Your task to perform on an android device: show emergency info Image 0: 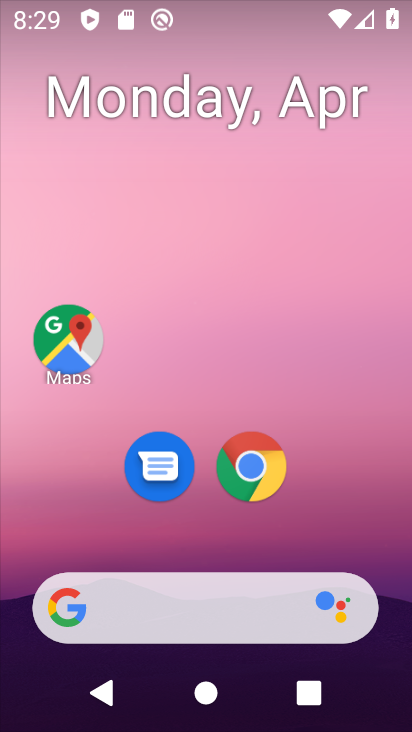
Step 0: drag from (231, 410) to (264, 80)
Your task to perform on an android device: show emergency info Image 1: 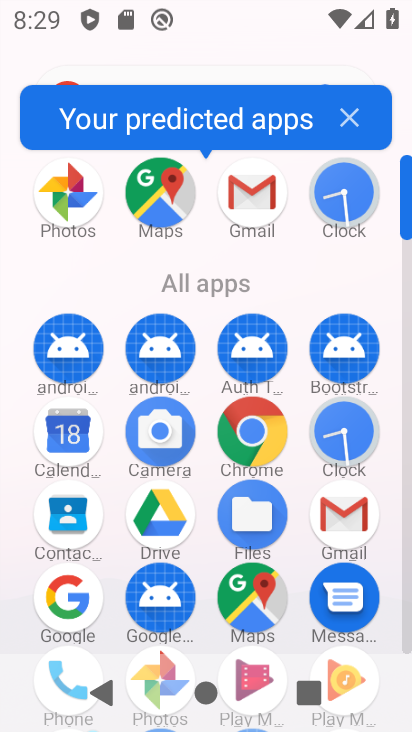
Step 1: drag from (299, 527) to (323, 233)
Your task to perform on an android device: show emergency info Image 2: 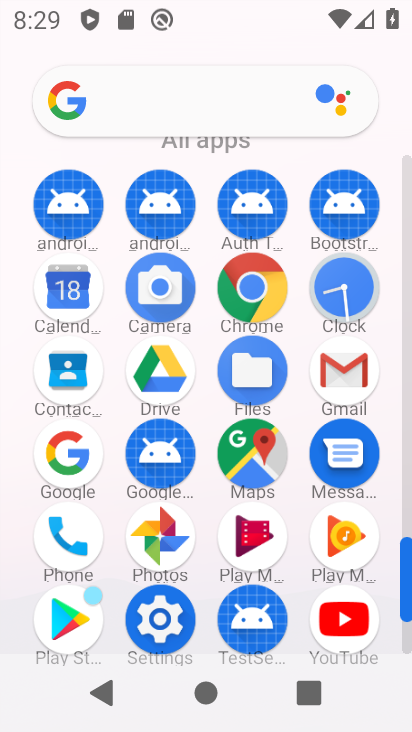
Step 2: click (163, 618)
Your task to perform on an android device: show emergency info Image 3: 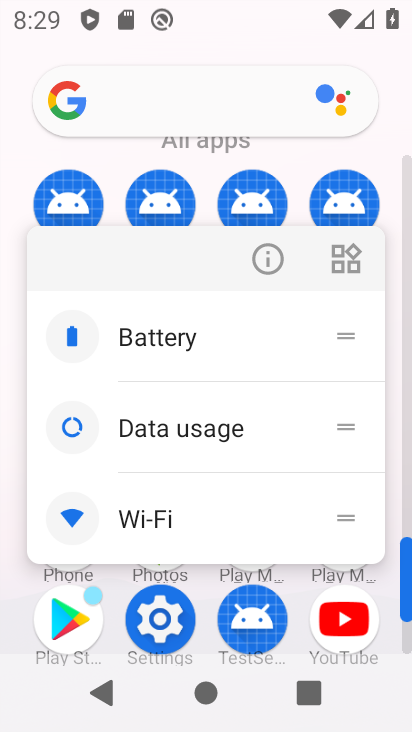
Step 3: click (163, 618)
Your task to perform on an android device: show emergency info Image 4: 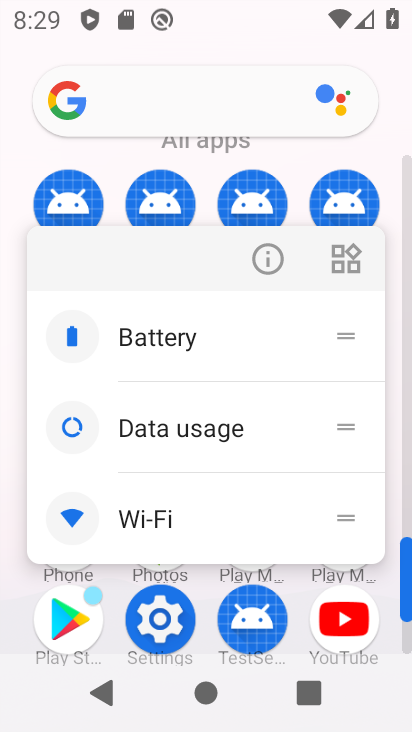
Step 4: click (163, 618)
Your task to perform on an android device: show emergency info Image 5: 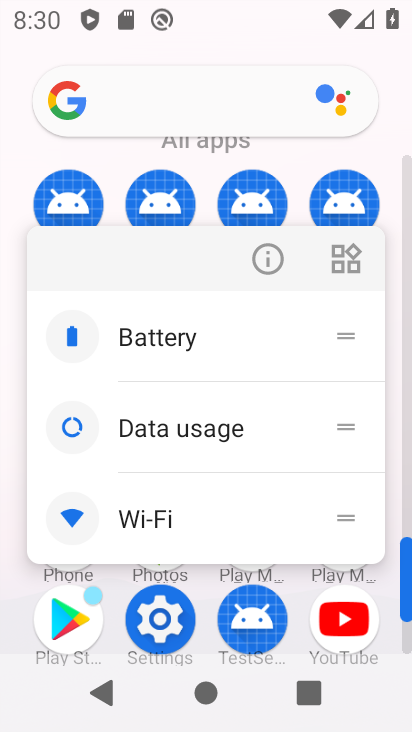
Step 5: click (162, 615)
Your task to perform on an android device: show emergency info Image 6: 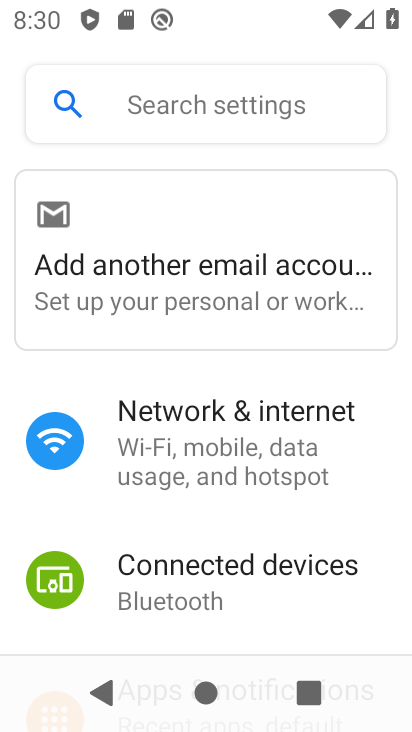
Step 6: drag from (270, 596) to (304, 390)
Your task to perform on an android device: show emergency info Image 7: 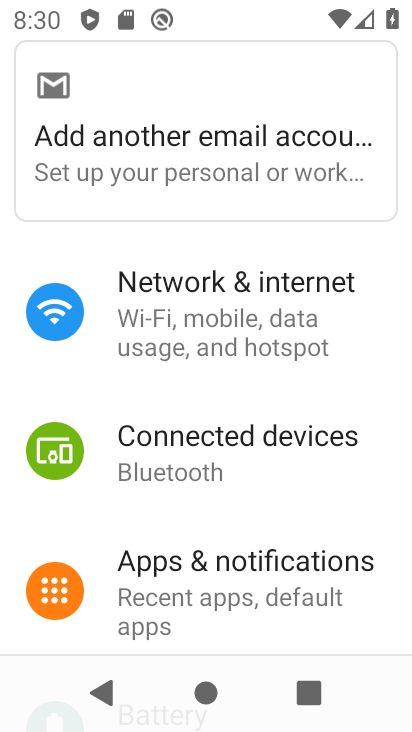
Step 7: drag from (285, 381) to (291, 302)
Your task to perform on an android device: show emergency info Image 8: 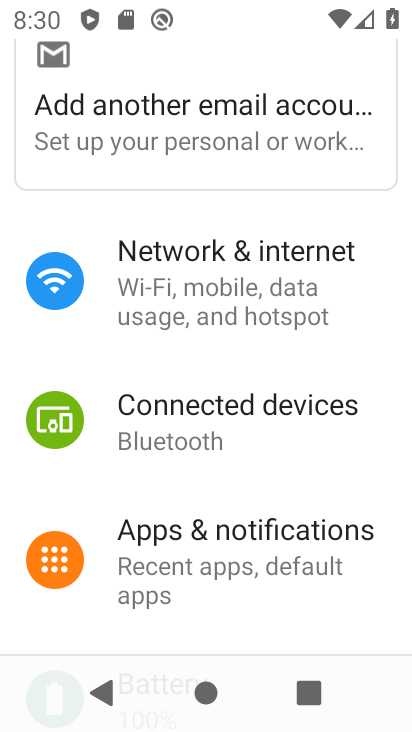
Step 8: drag from (239, 610) to (299, 444)
Your task to perform on an android device: show emergency info Image 9: 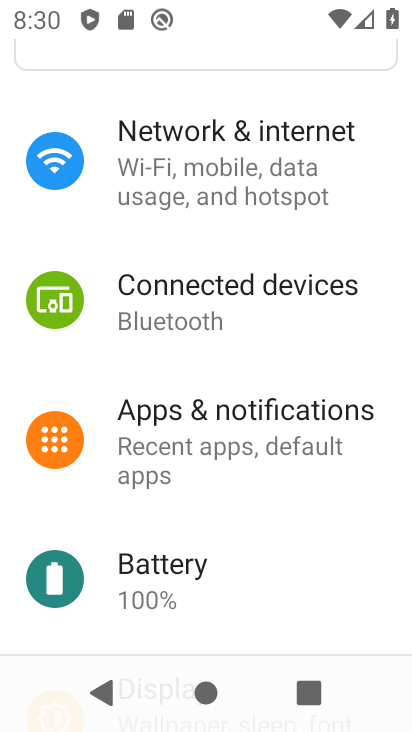
Step 9: drag from (253, 562) to (304, 354)
Your task to perform on an android device: show emergency info Image 10: 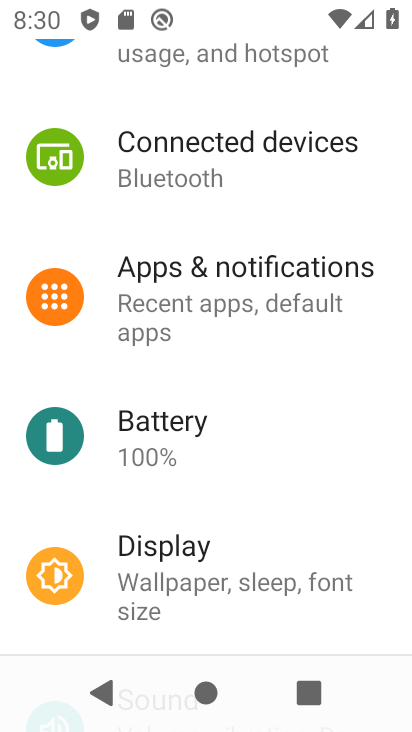
Step 10: drag from (287, 446) to (326, 267)
Your task to perform on an android device: show emergency info Image 11: 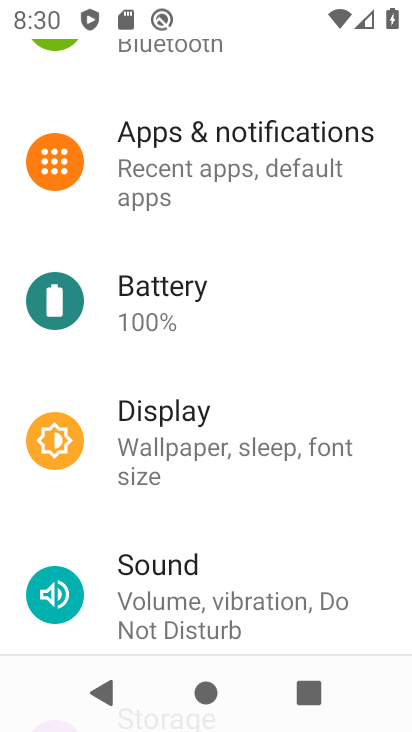
Step 11: drag from (268, 509) to (308, 389)
Your task to perform on an android device: show emergency info Image 12: 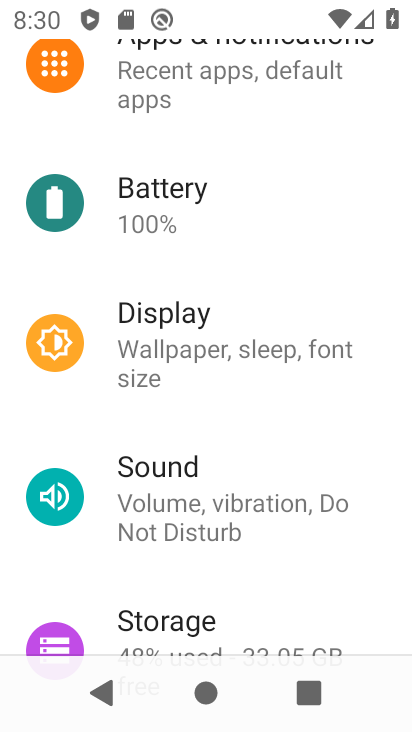
Step 12: drag from (256, 465) to (289, 325)
Your task to perform on an android device: show emergency info Image 13: 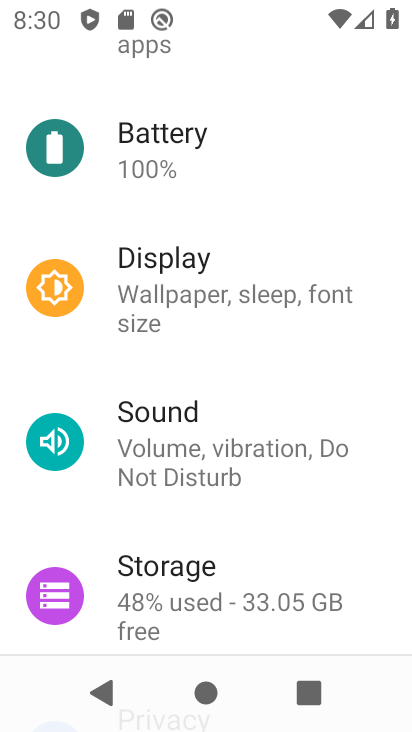
Step 13: drag from (260, 538) to (300, 354)
Your task to perform on an android device: show emergency info Image 14: 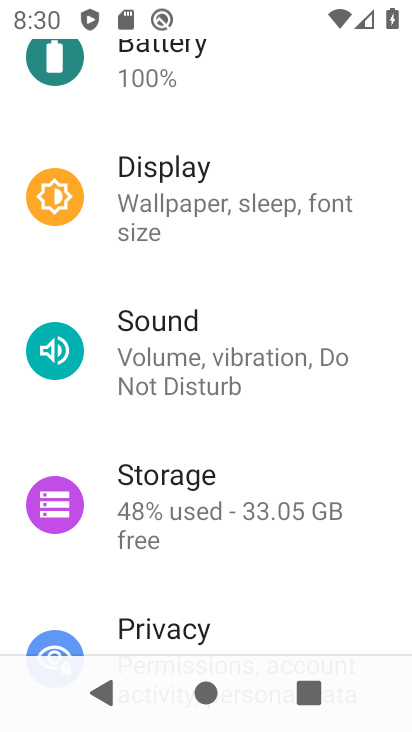
Step 14: drag from (267, 463) to (305, 310)
Your task to perform on an android device: show emergency info Image 15: 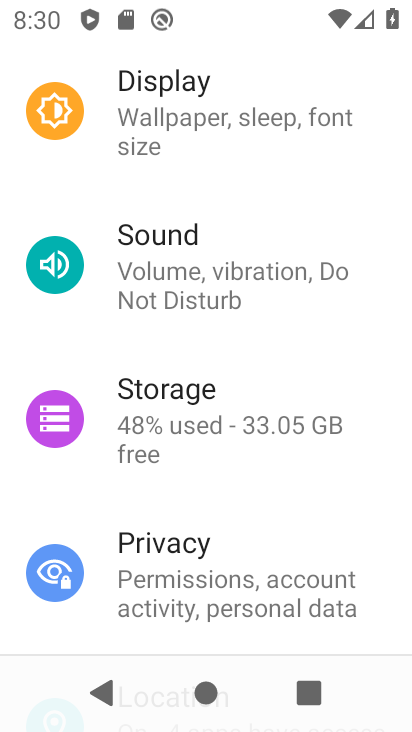
Step 15: drag from (244, 514) to (290, 405)
Your task to perform on an android device: show emergency info Image 16: 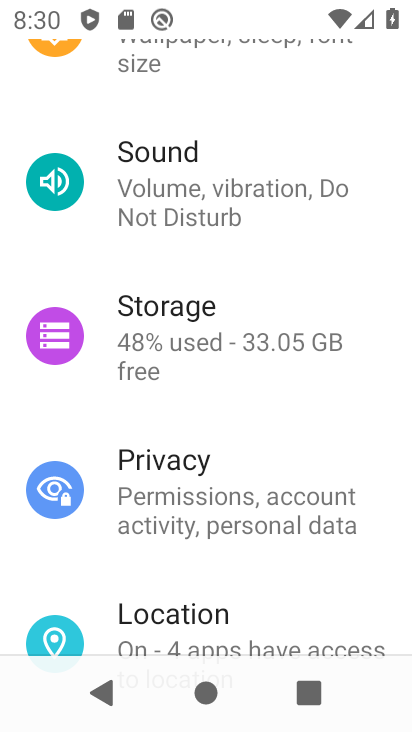
Step 16: drag from (275, 470) to (295, 426)
Your task to perform on an android device: show emergency info Image 17: 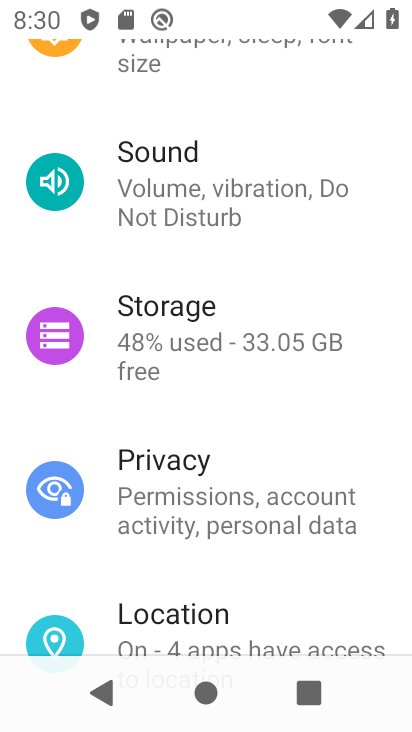
Step 17: drag from (276, 590) to (298, 413)
Your task to perform on an android device: show emergency info Image 18: 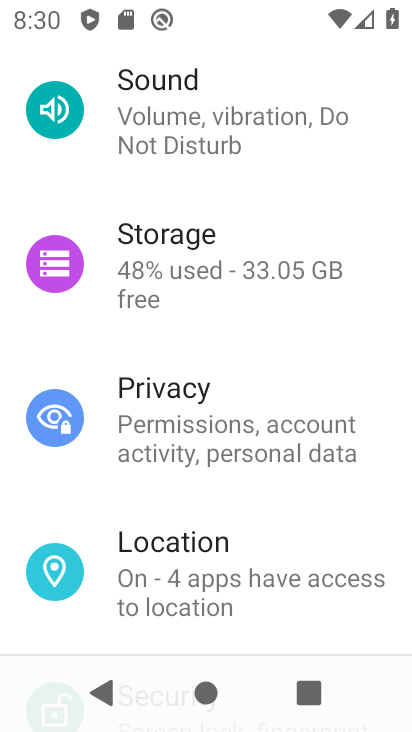
Step 18: drag from (299, 542) to (339, 280)
Your task to perform on an android device: show emergency info Image 19: 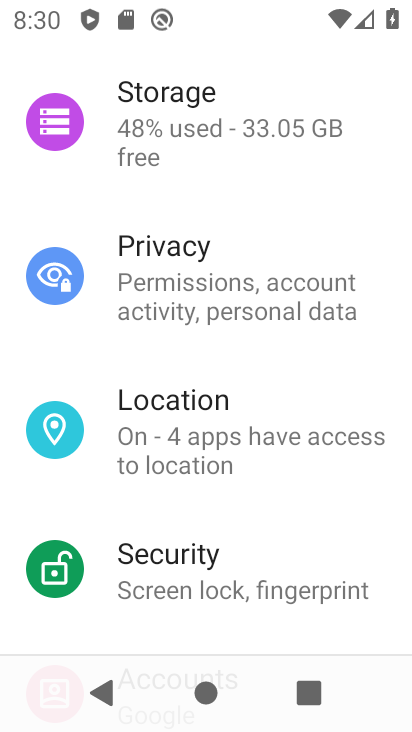
Step 19: drag from (292, 623) to (361, 380)
Your task to perform on an android device: show emergency info Image 20: 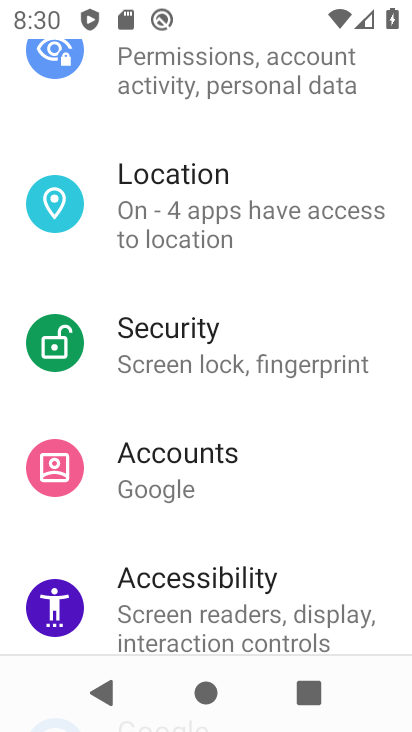
Step 20: drag from (295, 533) to (315, 413)
Your task to perform on an android device: show emergency info Image 21: 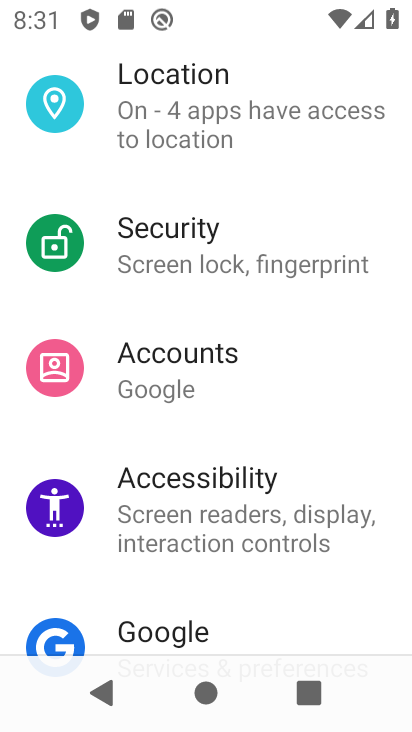
Step 21: drag from (311, 571) to (313, 391)
Your task to perform on an android device: show emergency info Image 22: 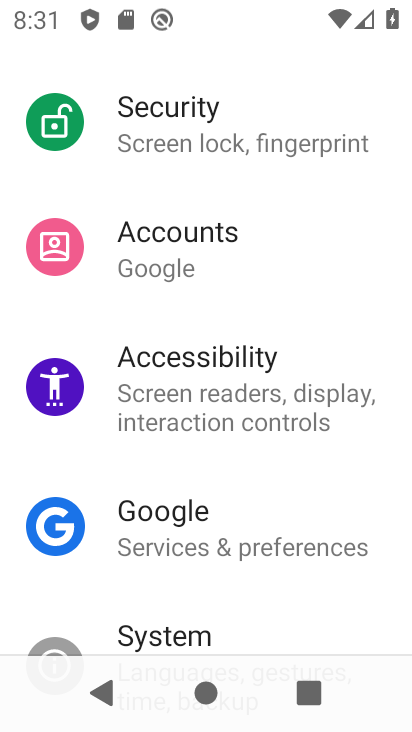
Step 22: drag from (288, 582) to (312, 484)
Your task to perform on an android device: show emergency info Image 23: 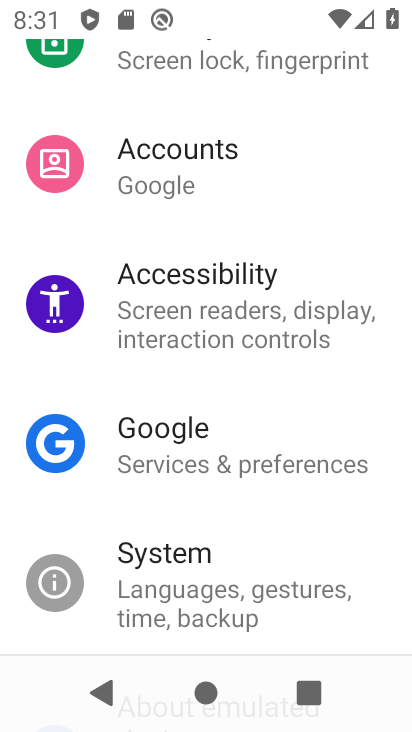
Step 23: drag from (275, 561) to (330, 414)
Your task to perform on an android device: show emergency info Image 24: 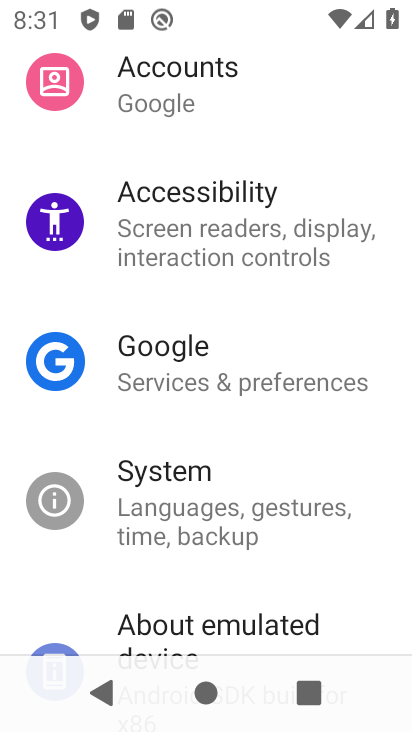
Step 24: drag from (305, 582) to (351, 404)
Your task to perform on an android device: show emergency info Image 25: 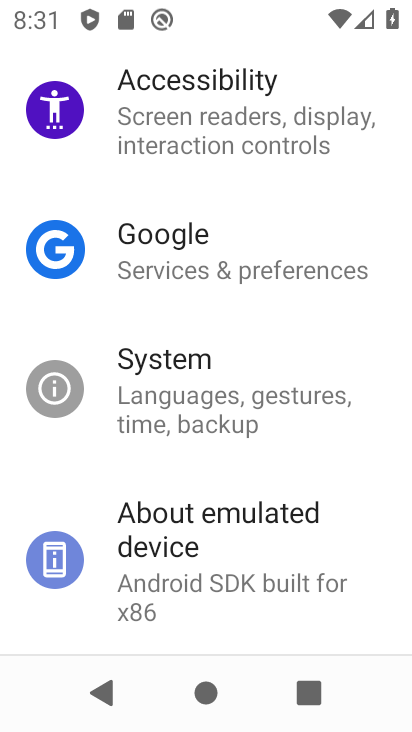
Step 25: click (258, 517)
Your task to perform on an android device: show emergency info Image 26: 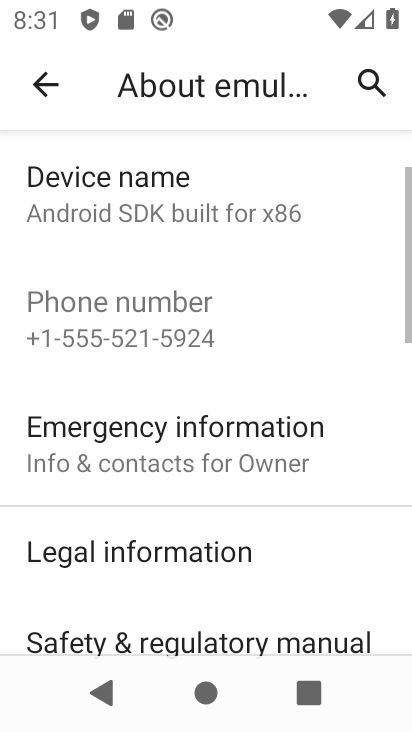
Step 26: click (251, 430)
Your task to perform on an android device: show emergency info Image 27: 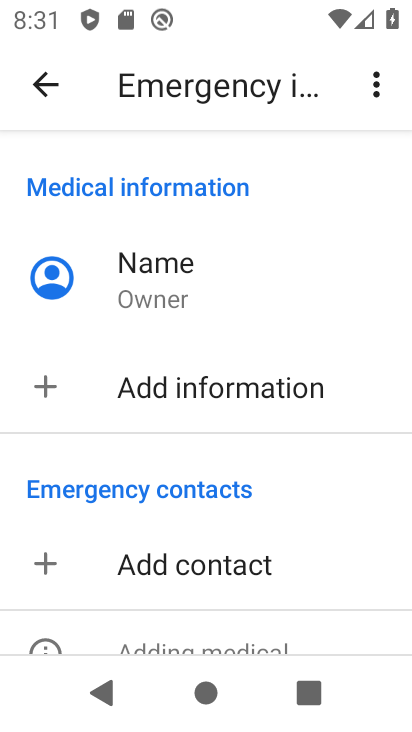
Step 27: task complete